Your task to perform on an android device: check the backup settings in the google photos Image 0: 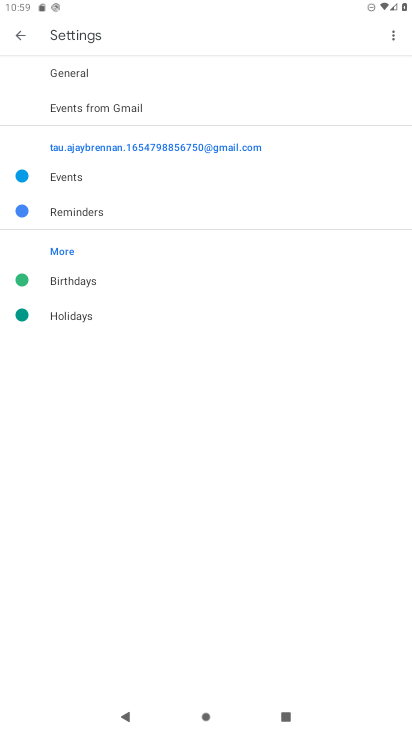
Step 0: press home button
Your task to perform on an android device: check the backup settings in the google photos Image 1: 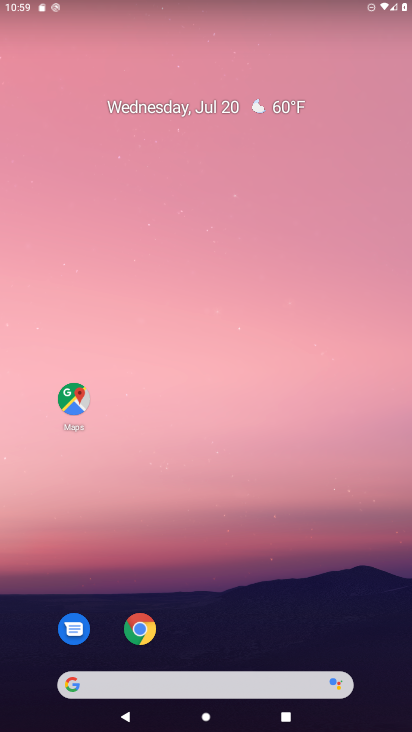
Step 1: drag from (216, 622) to (222, 198)
Your task to perform on an android device: check the backup settings in the google photos Image 2: 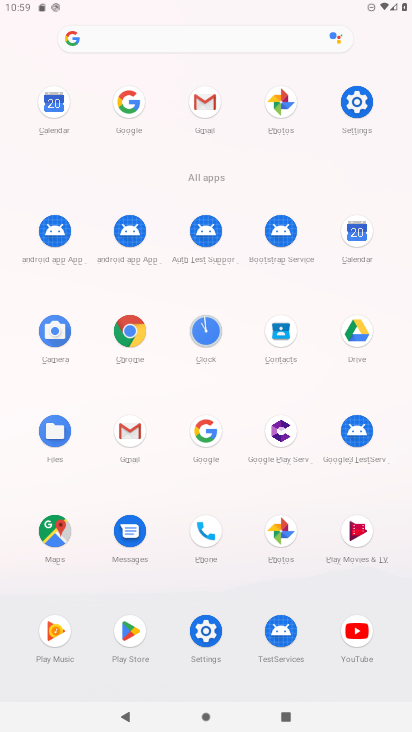
Step 2: click (271, 108)
Your task to perform on an android device: check the backup settings in the google photos Image 3: 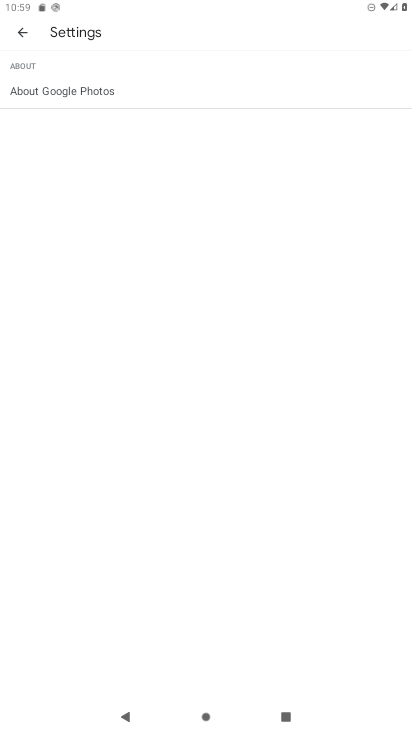
Step 3: click (19, 33)
Your task to perform on an android device: check the backup settings in the google photos Image 4: 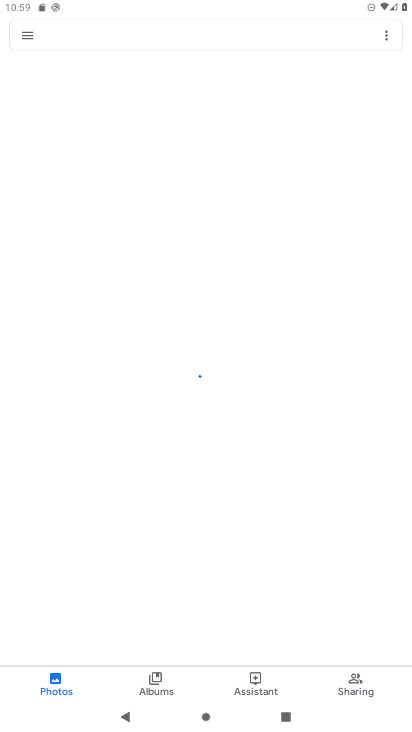
Step 4: click (28, 21)
Your task to perform on an android device: check the backup settings in the google photos Image 5: 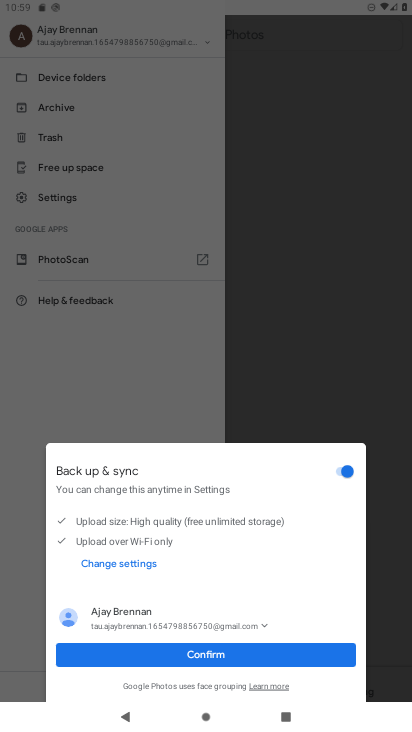
Step 5: click (192, 644)
Your task to perform on an android device: check the backup settings in the google photos Image 6: 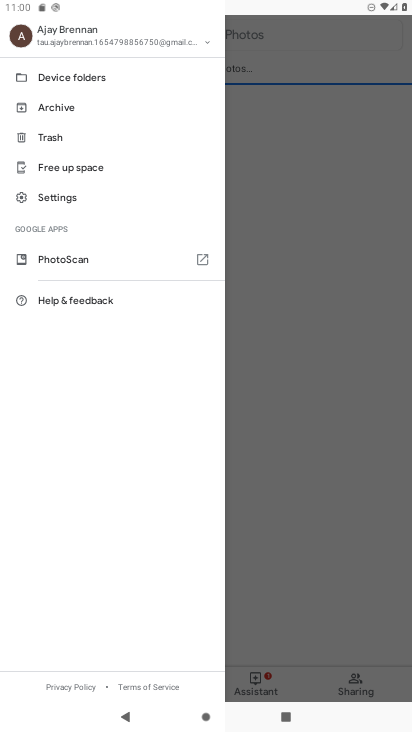
Step 6: click (62, 201)
Your task to perform on an android device: check the backup settings in the google photos Image 7: 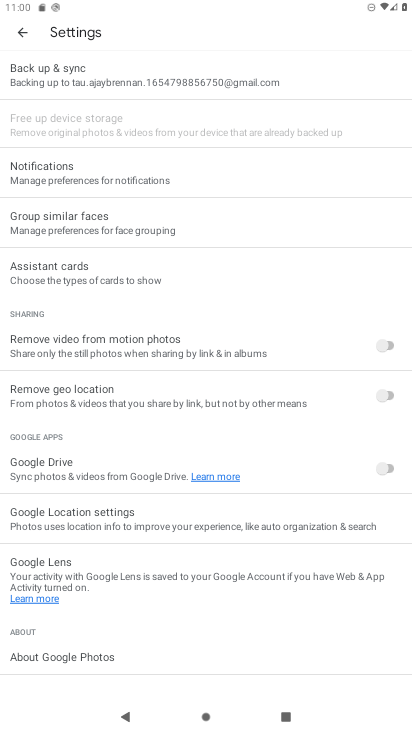
Step 7: click (88, 73)
Your task to perform on an android device: check the backup settings in the google photos Image 8: 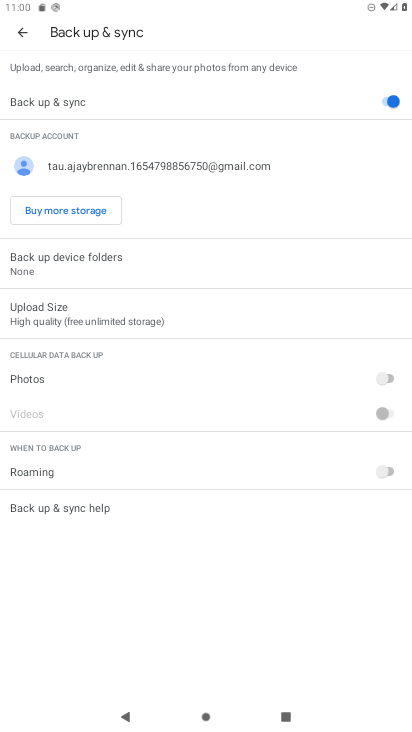
Step 8: click (378, 102)
Your task to perform on an android device: check the backup settings in the google photos Image 9: 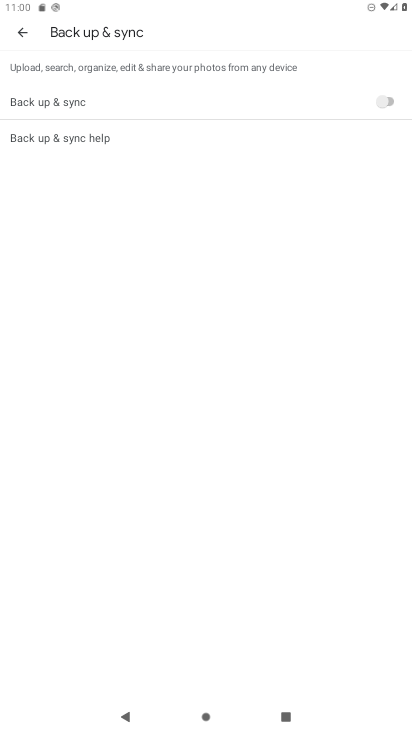
Step 9: task complete